Your task to perform on an android device: Go to Google Image 0: 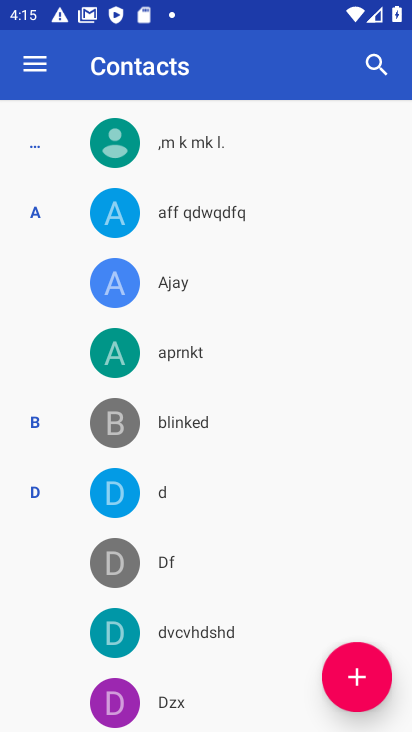
Step 0: press home button
Your task to perform on an android device: Go to Google Image 1: 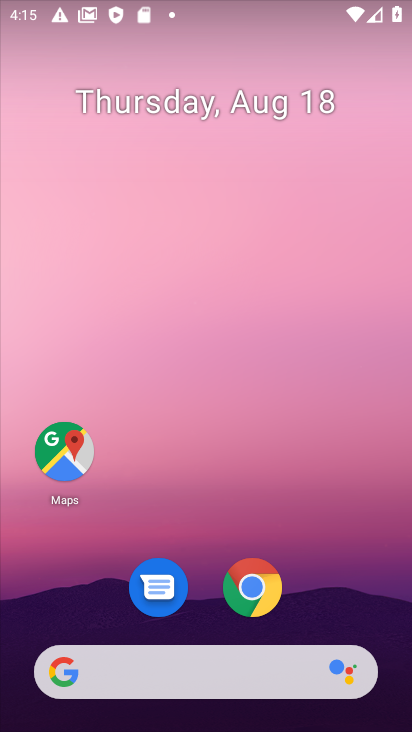
Step 1: drag from (305, 601) to (381, 70)
Your task to perform on an android device: Go to Google Image 2: 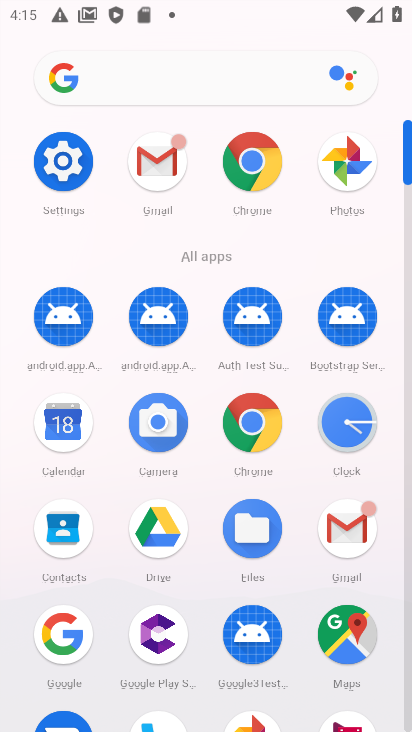
Step 2: click (49, 628)
Your task to perform on an android device: Go to Google Image 3: 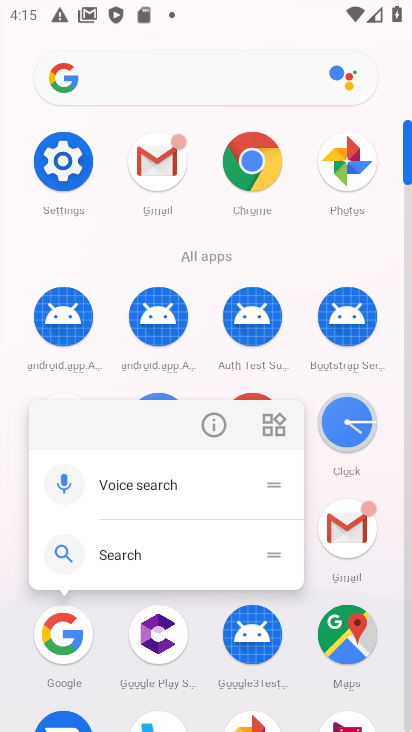
Step 3: click (56, 638)
Your task to perform on an android device: Go to Google Image 4: 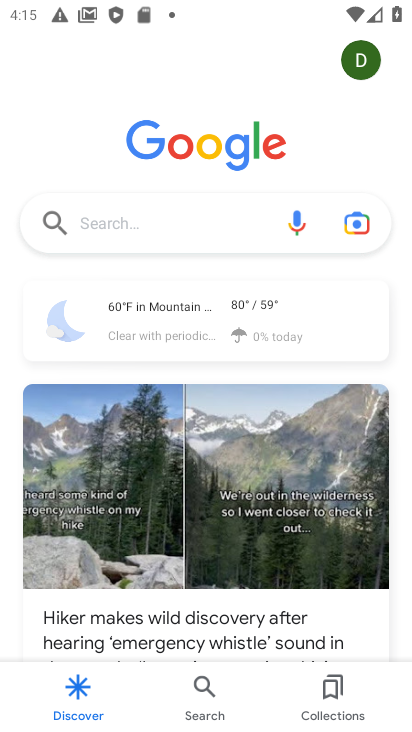
Step 4: task complete